Your task to perform on an android device: add a contact in the contacts app Image 0: 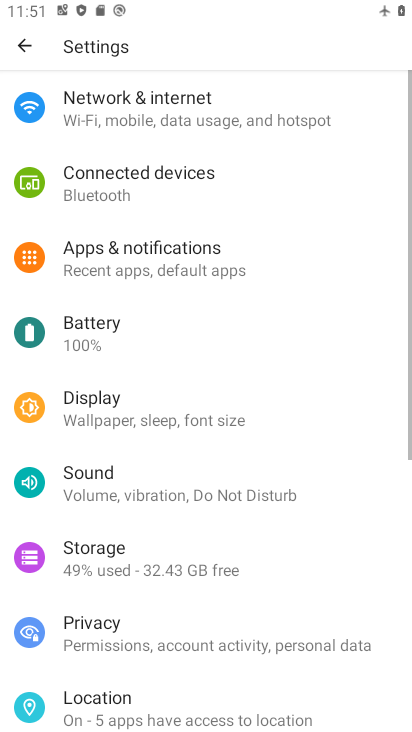
Step 0: press home button
Your task to perform on an android device: add a contact in the contacts app Image 1: 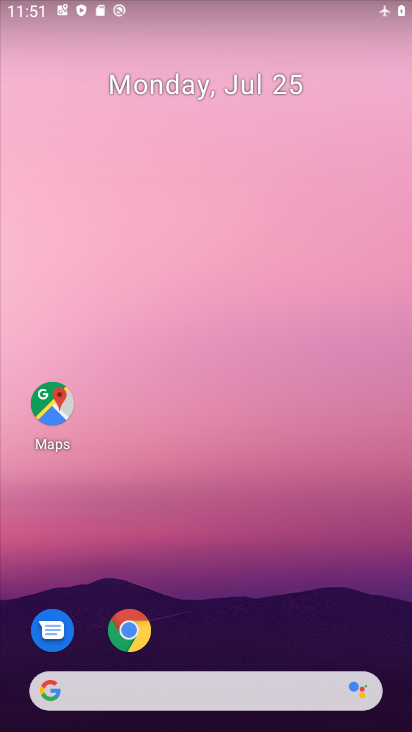
Step 1: drag from (326, 625) to (365, 174)
Your task to perform on an android device: add a contact in the contacts app Image 2: 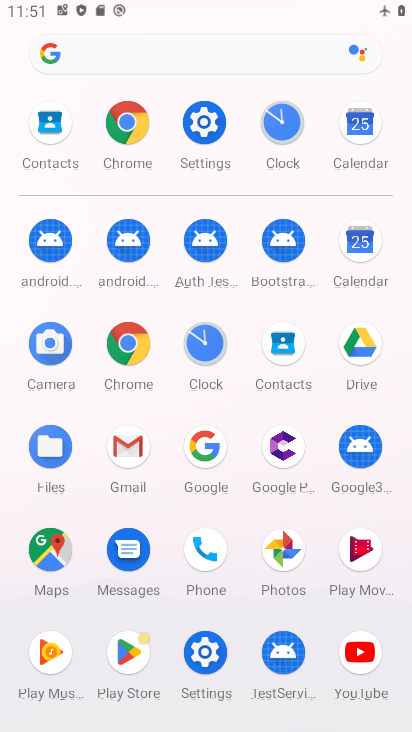
Step 2: click (280, 353)
Your task to perform on an android device: add a contact in the contacts app Image 3: 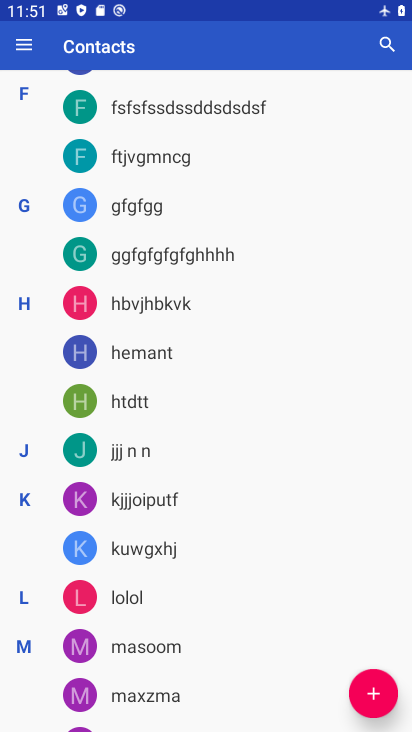
Step 3: click (368, 705)
Your task to perform on an android device: add a contact in the contacts app Image 4: 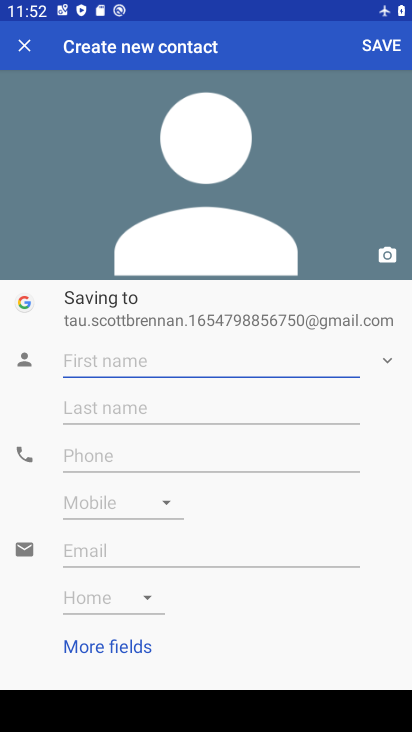
Step 4: type "fav"
Your task to perform on an android device: add a contact in the contacts app Image 5: 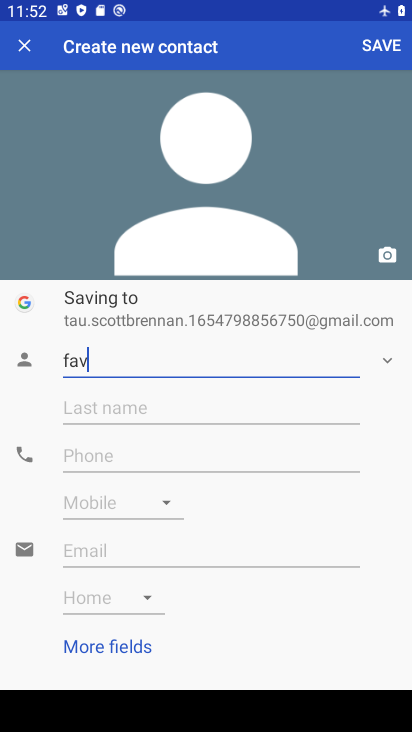
Step 5: click (299, 450)
Your task to perform on an android device: add a contact in the contacts app Image 6: 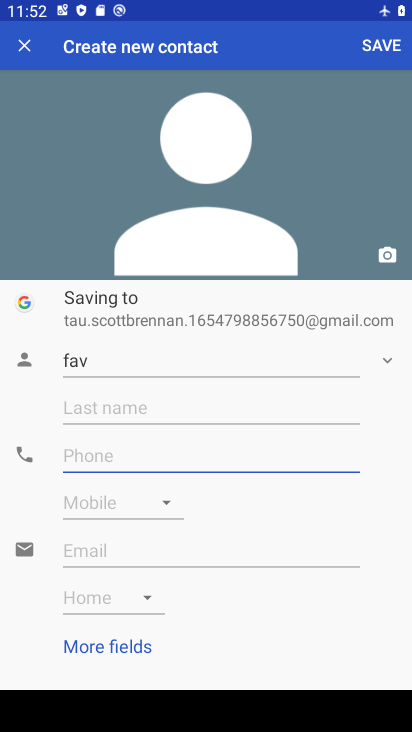
Step 6: type "123456677889"
Your task to perform on an android device: add a contact in the contacts app Image 7: 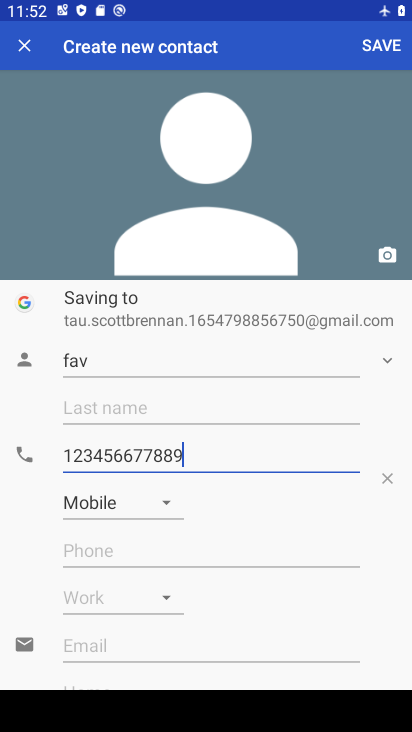
Step 7: click (388, 48)
Your task to perform on an android device: add a contact in the contacts app Image 8: 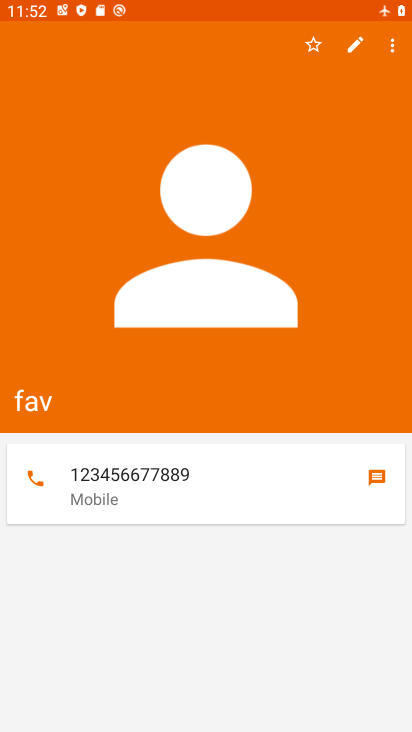
Step 8: task complete